Your task to perform on an android device: choose inbox layout in the gmail app Image 0: 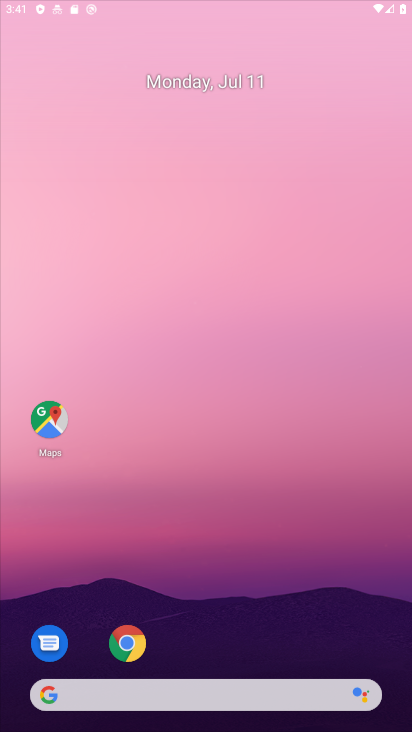
Step 0: press home button
Your task to perform on an android device: choose inbox layout in the gmail app Image 1: 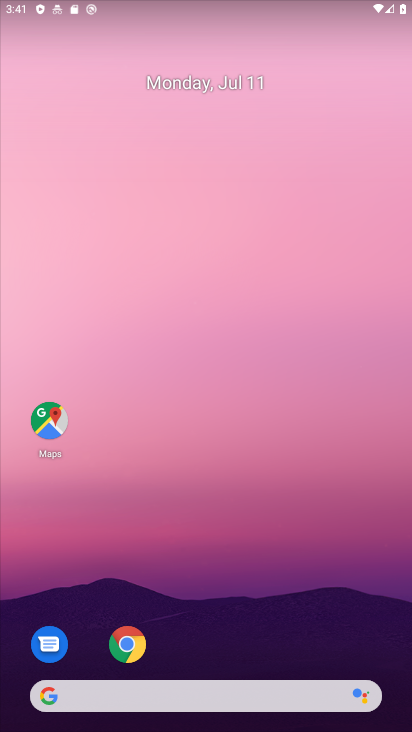
Step 1: click (222, 84)
Your task to perform on an android device: choose inbox layout in the gmail app Image 2: 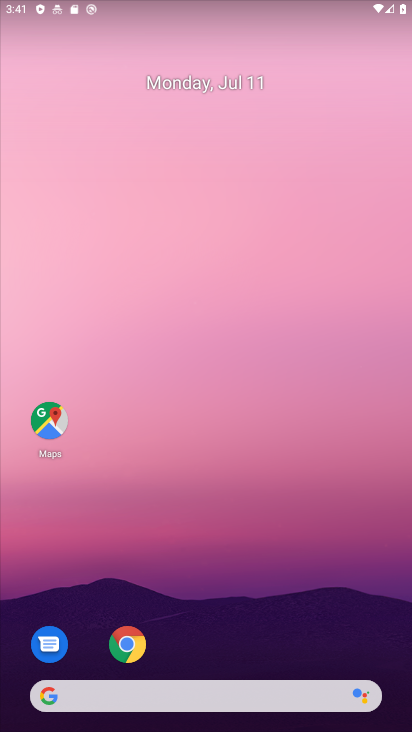
Step 2: drag from (203, 653) to (251, 118)
Your task to perform on an android device: choose inbox layout in the gmail app Image 3: 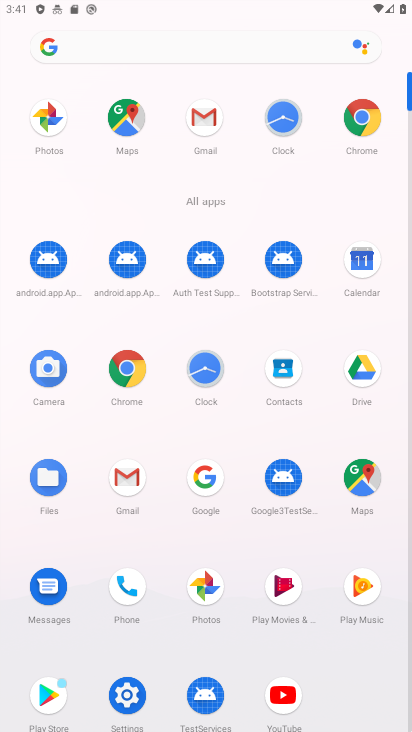
Step 3: click (196, 110)
Your task to perform on an android device: choose inbox layout in the gmail app Image 4: 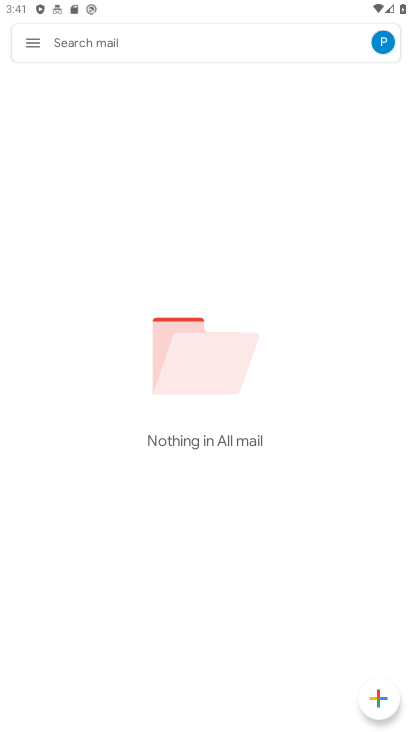
Step 4: click (33, 43)
Your task to perform on an android device: choose inbox layout in the gmail app Image 5: 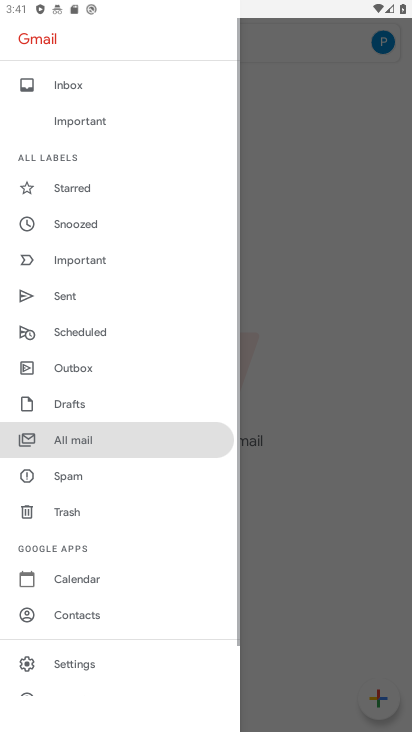
Step 5: click (49, 669)
Your task to perform on an android device: choose inbox layout in the gmail app Image 6: 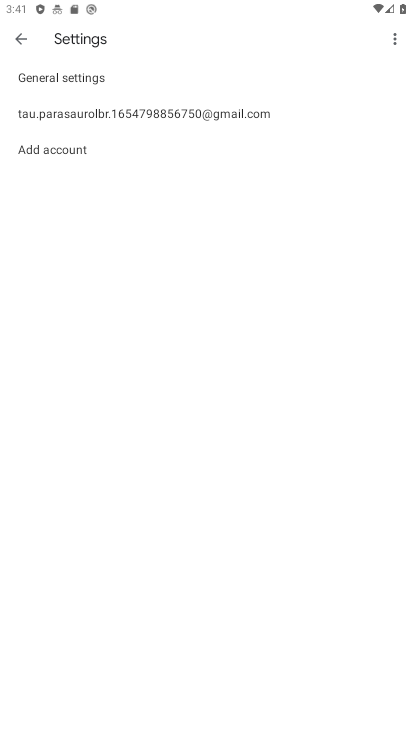
Step 6: click (126, 118)
Your task to perform on an android device: choose inbox layout in the gmail app Image 7: 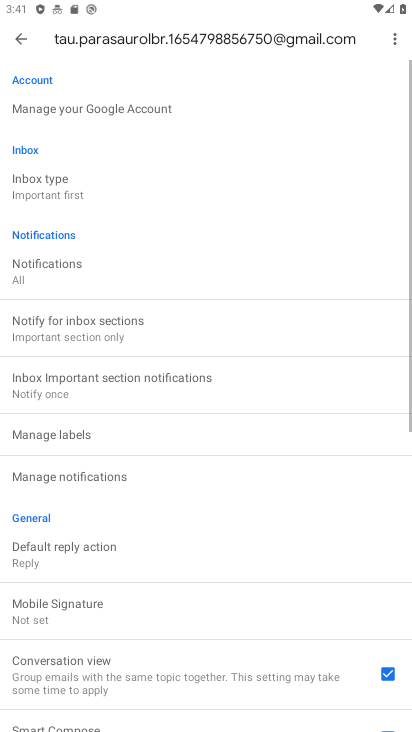
Step 7: click (55, 180)
Your task to perform on an android device: choose inbox layout in the gmail app Image 8: 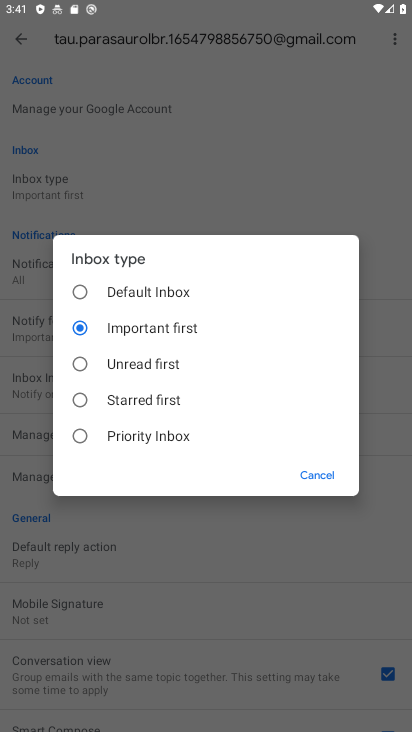
Step 8: click (76, 291)
Your task to perform on an android device: choose inbox layout in the gmail app Image 9: 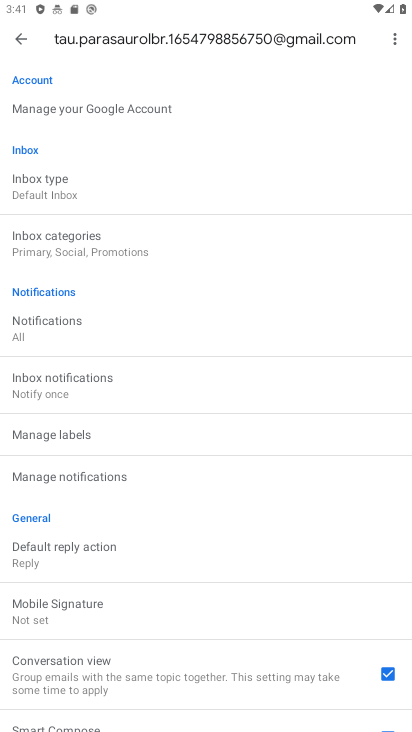
Step 9: task complete